Your task to perform on an android device: check android version Image 0: 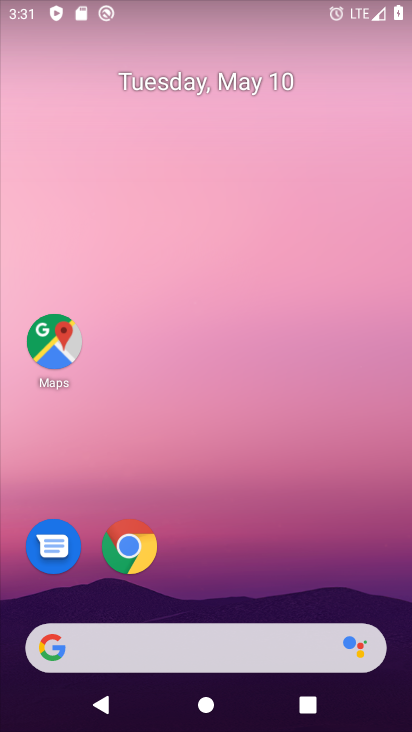
Step 0: drag from (230, 599) to (267, 97)
Your task to perform on an android device: check android version Image 1: 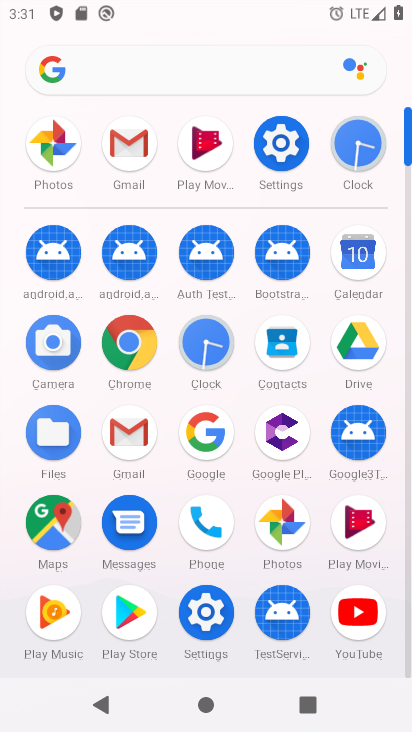
Step 1: click (216, 626)
Your task to perform on an android device: check android version Image 2: 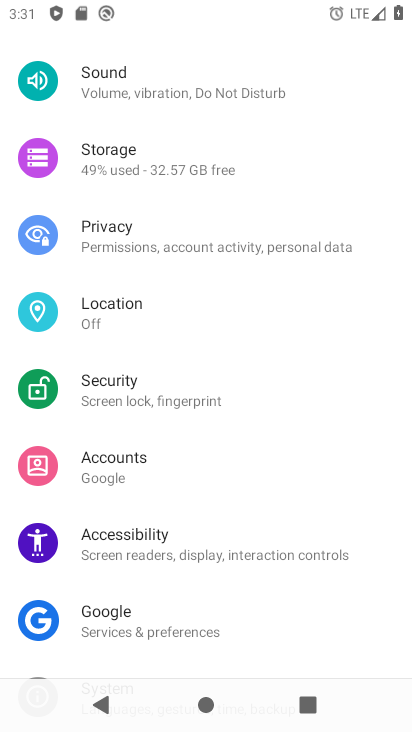
Step 2: drag from (169, 613) to (233, 126)
Your task to perform on an android device: check android version Image 3: 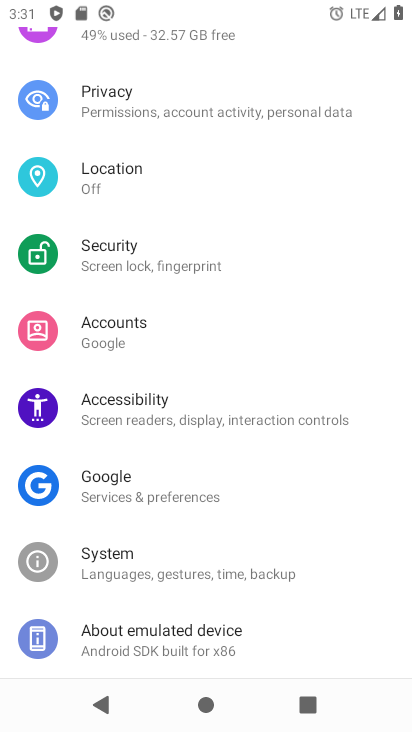
Step 3: drag from (194, 627) to (215, 510)
Your task to perform on an android device: check android version Image 4: 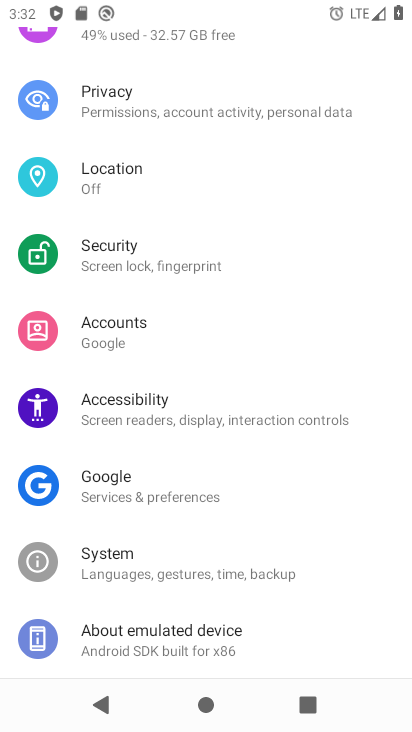
Step 4: click (156, 646)
Your task to perform on an android device: check android version Image 5: 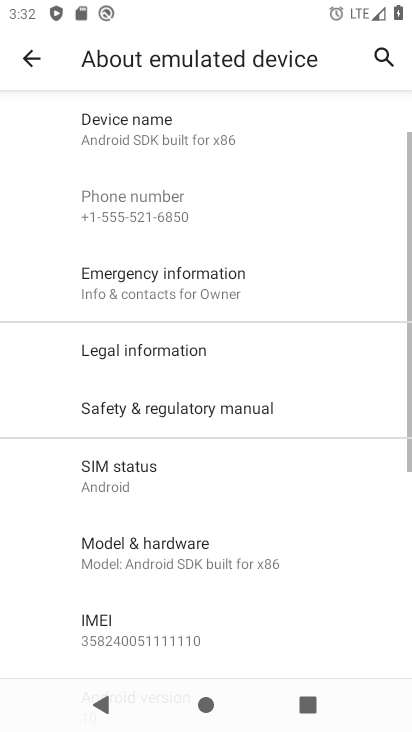
Step 5: drag from (166, 600) to (195, 250)
Your task to perform on an android device: check android version Image 6: 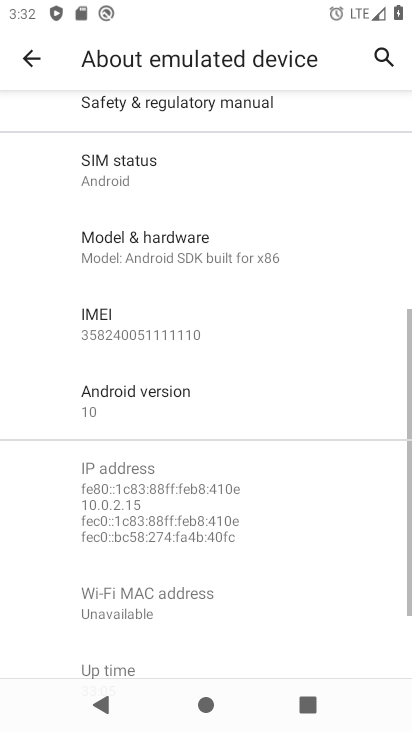
Step 6: click (151, 416)
Your task to perform on an android device: check android version Image 7: 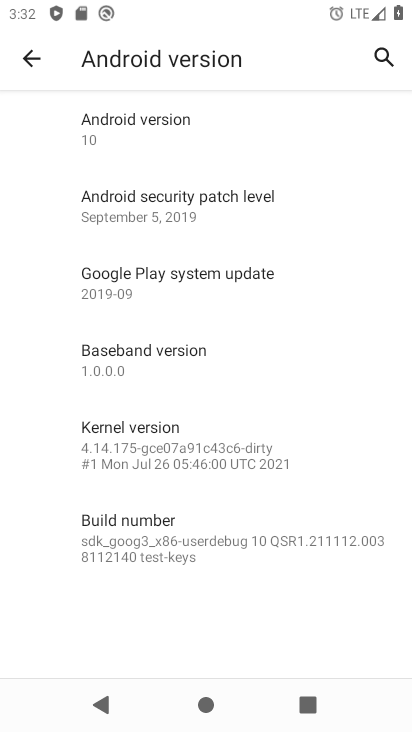
Step 7: task complete